Your task to perform on an android device: Go to notification settings Image 0: 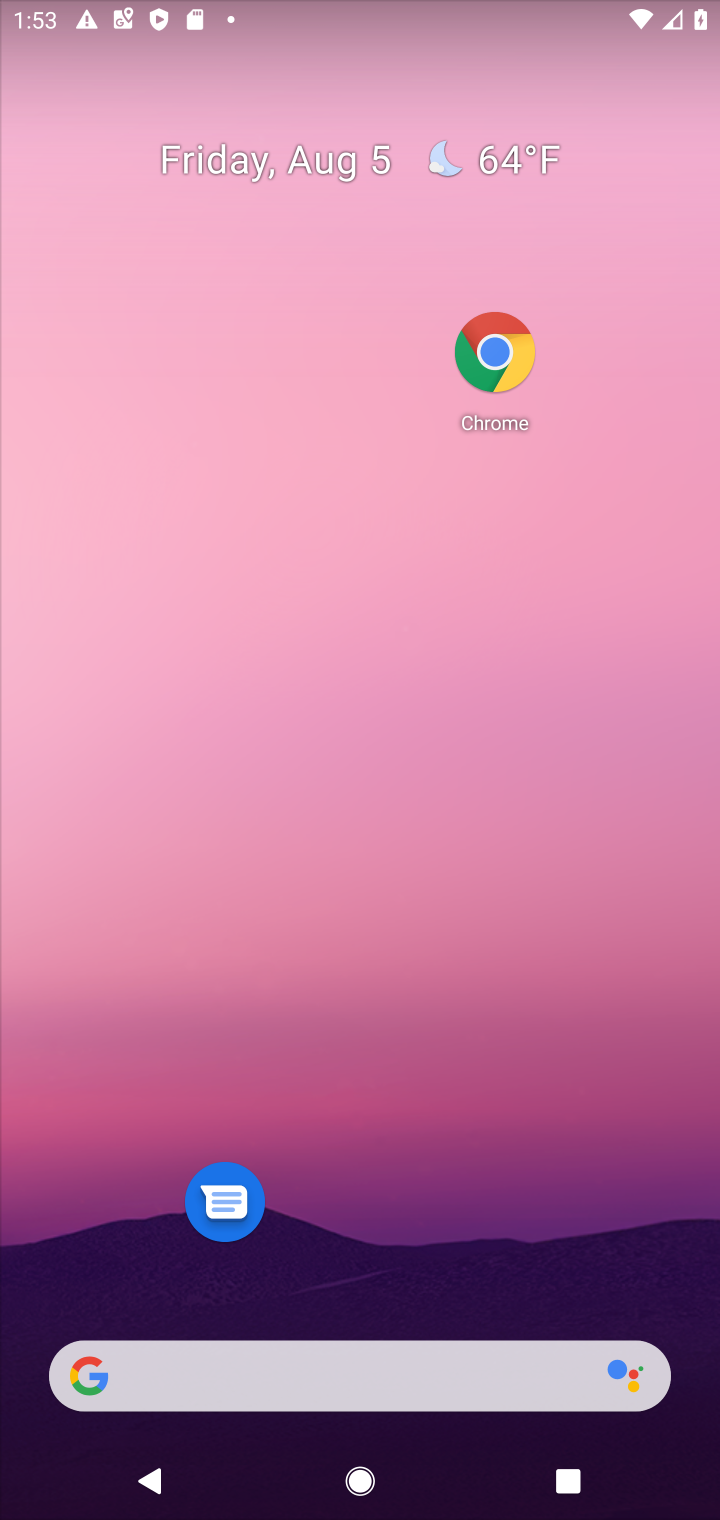
Step 0: drag from (488, 1215) to (467, 160)
Your task to perform on an android device: Go to notification settings Image 1: 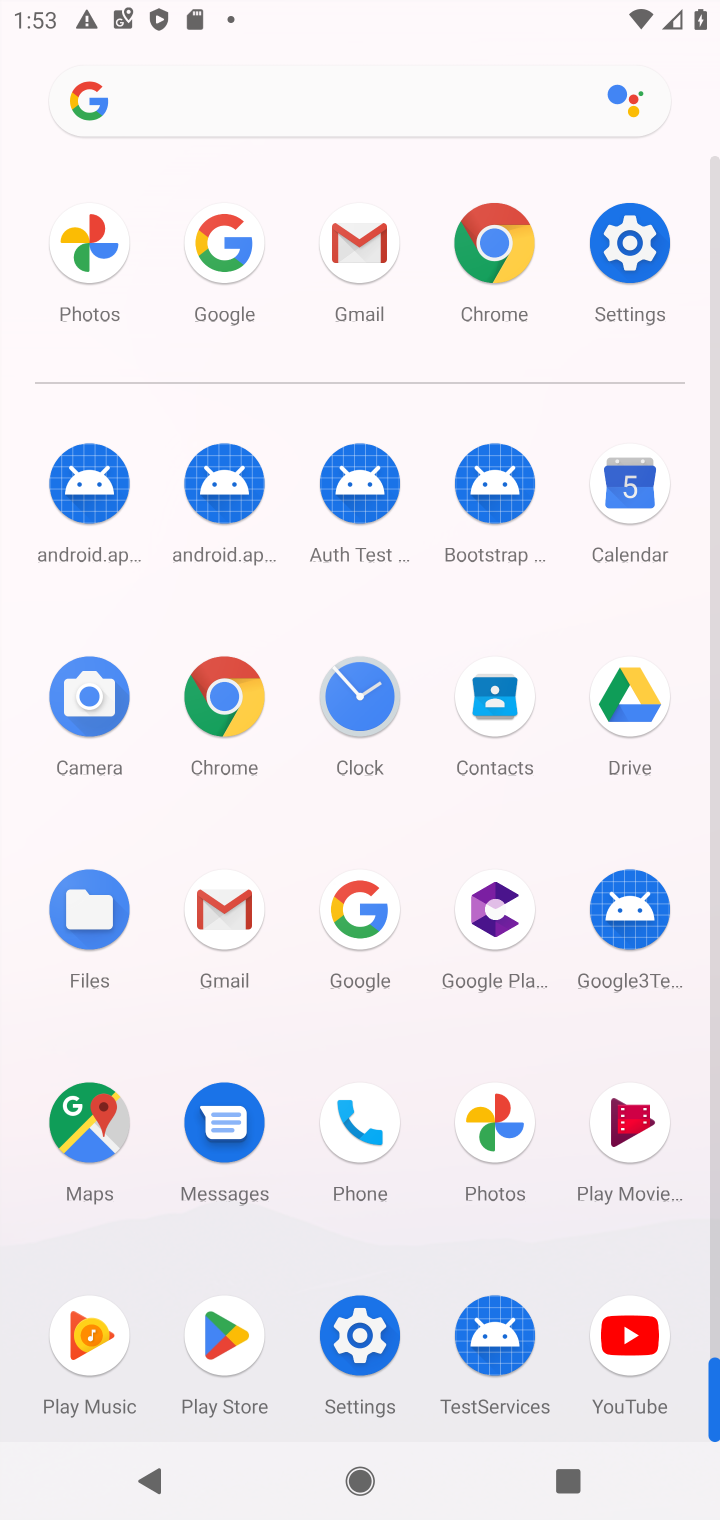
Step 1: click (367, 1332)
Your task to perform on an android device: Go to notification settings Image 2: 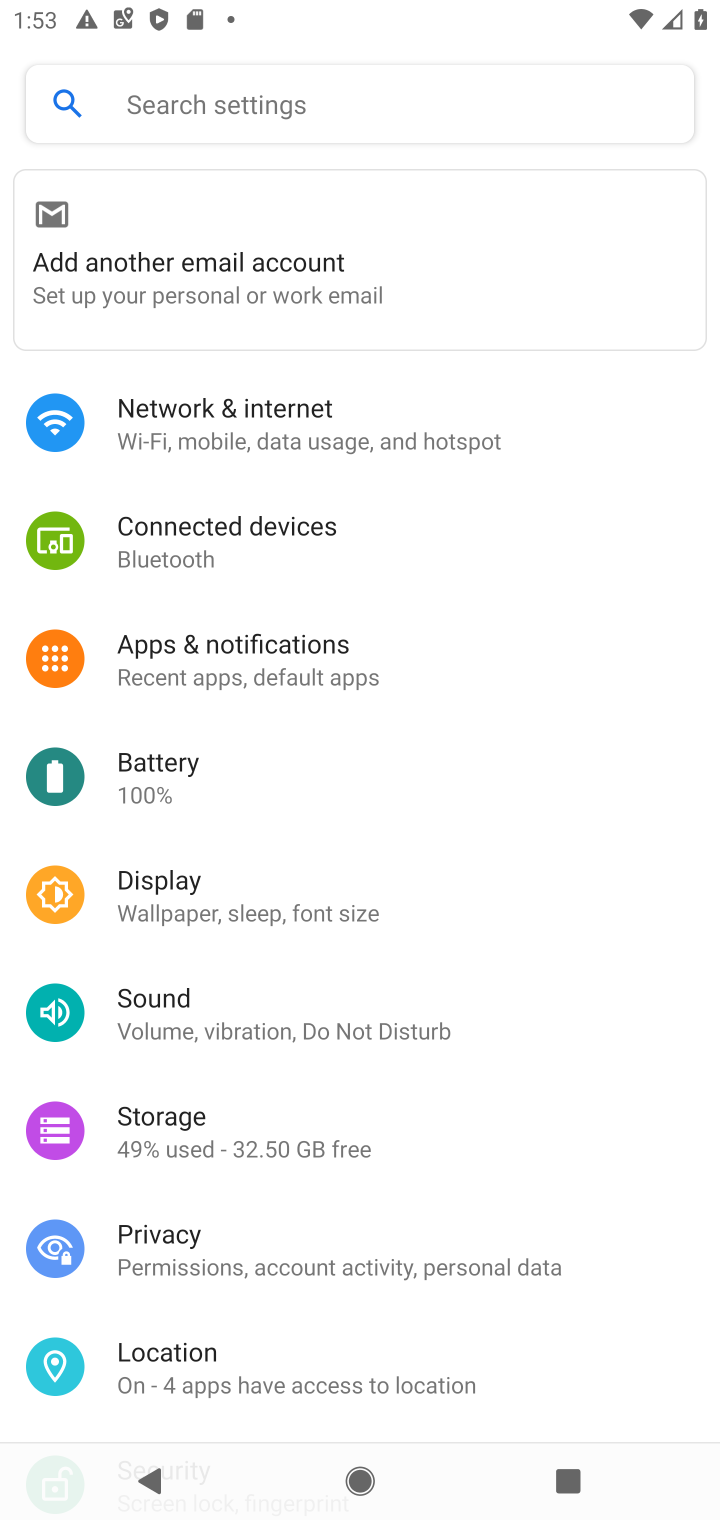
Step 2: click (217, 645)
Your task to perform on an android device: Go to notification settings Image 3: 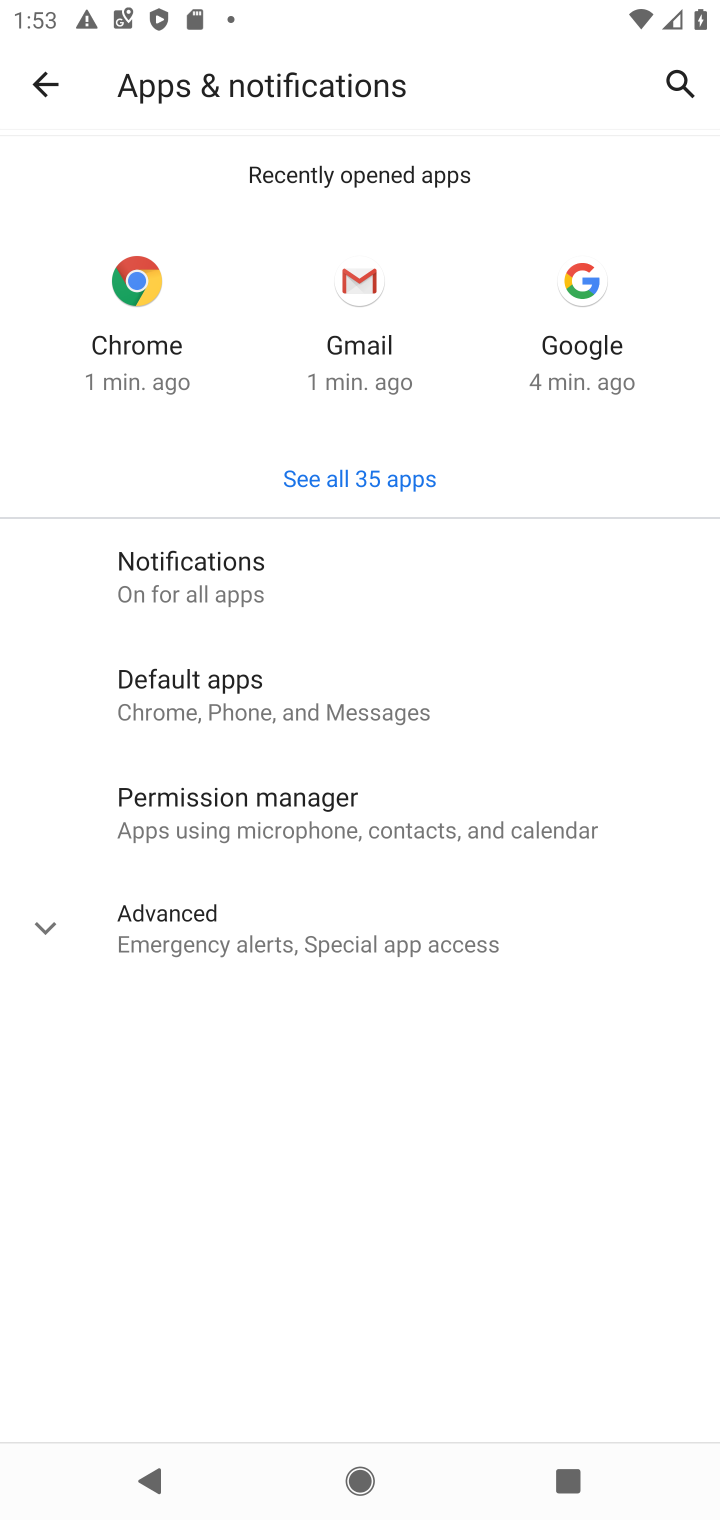
Step 3: click (148, 590)
Your task to perform on an android device: Go to notification settings Image 4: 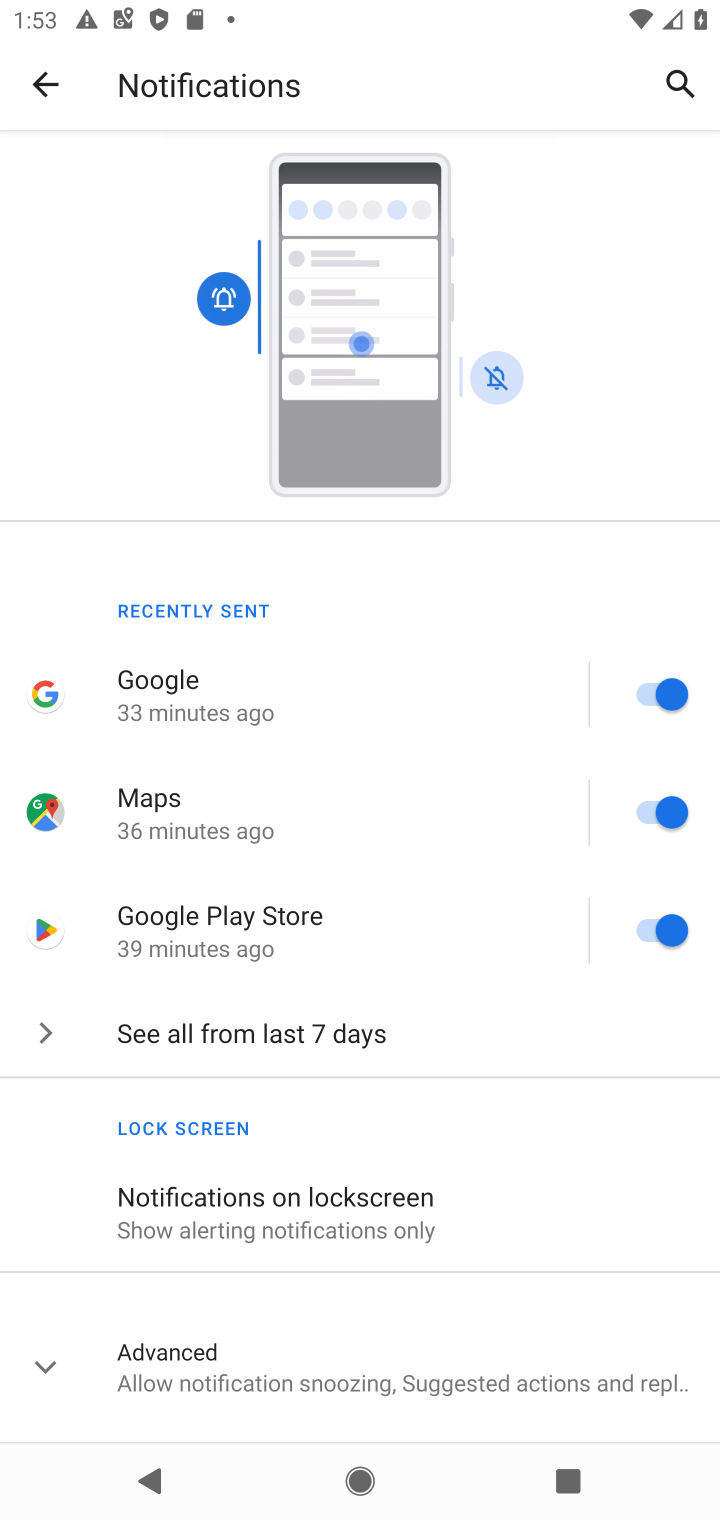
Step 4: task complete